Your task to perform on an android device: toggle wifi Image 0: 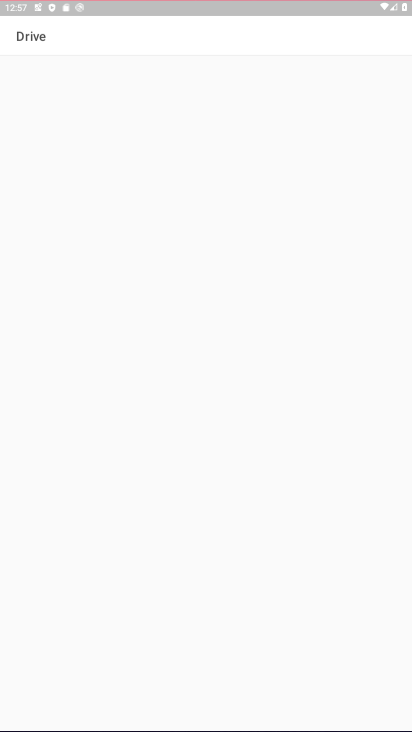
Step 0: press home button
Your task to perform on an android device: toggle wifi Image 1: 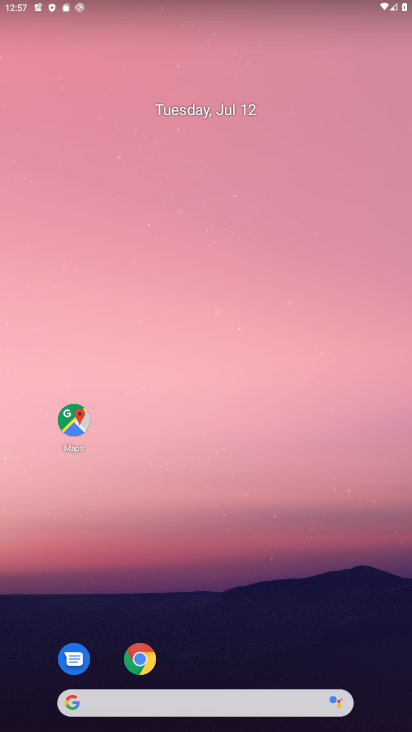
Step 1: drag from (236, 728) to (256, 159)
Your task to perform on an android device: toggle wifi Image 2: 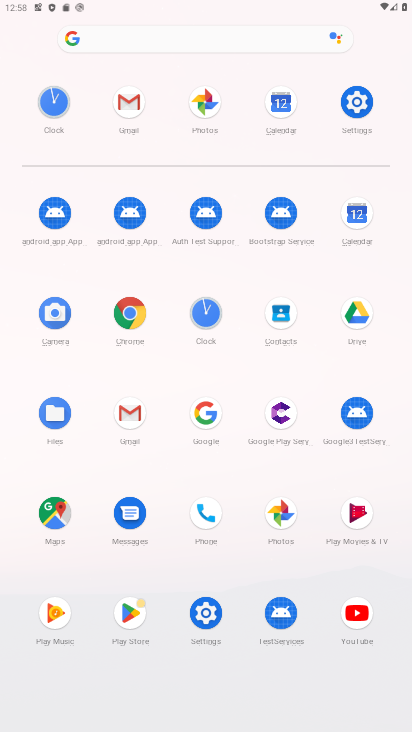
Step 2: click (355, 100)
Your task to perform on an android device: toggle wifi Image 3: 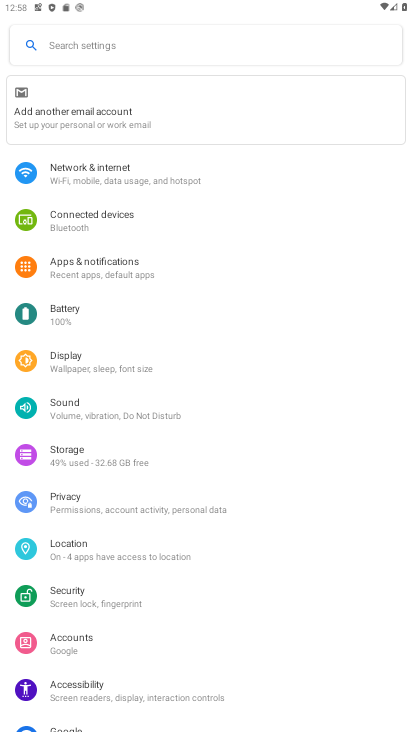
Step 3: click (56, 174)
Your task to perform on an android device: toggle wifi Image 4: 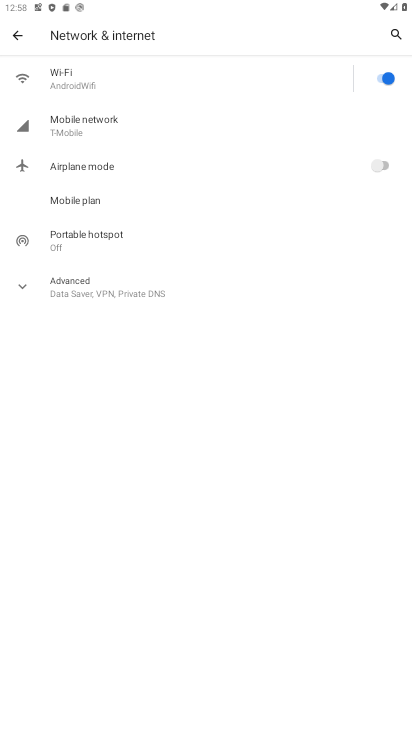
Step 4: click (64, 79)
Your task to perform on an android device: toggle wifi Image 5: 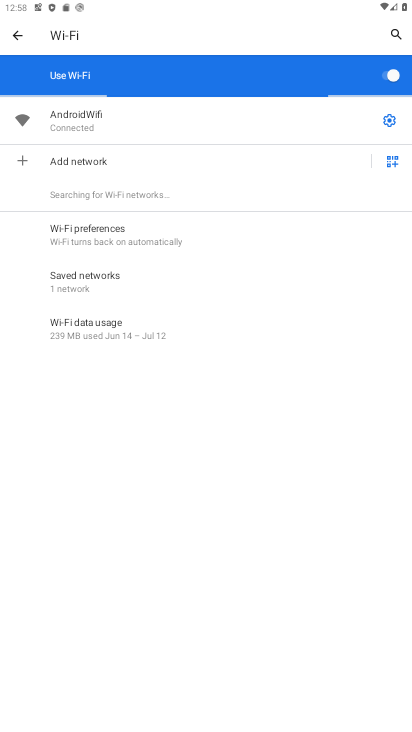
Step 5: click (387, 76)
Your task to perform on an android device: toggle wifi Image 6: 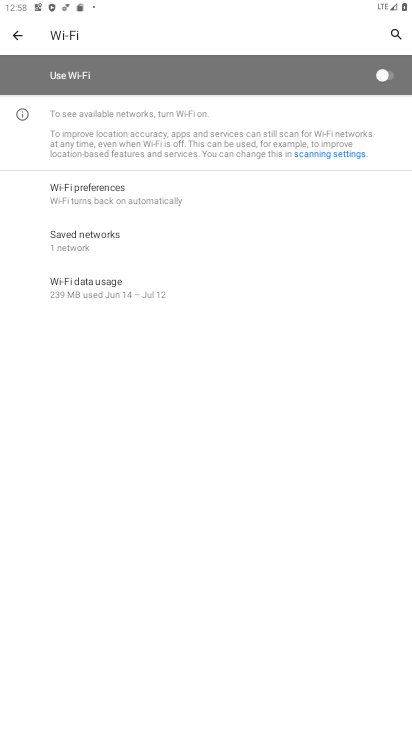
Step 6: task complete